Your task to perform on an android device: see sites visited before in the chrome app Image 0: 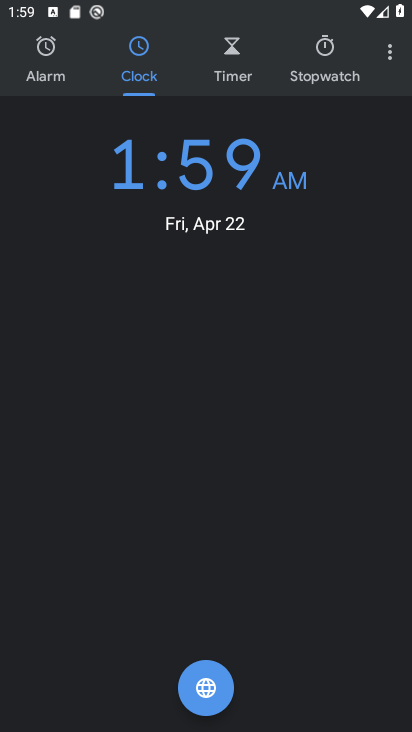
Step 0: press home button
Your task to perform on an android device: see sites visited before in the chrome app Image 1: 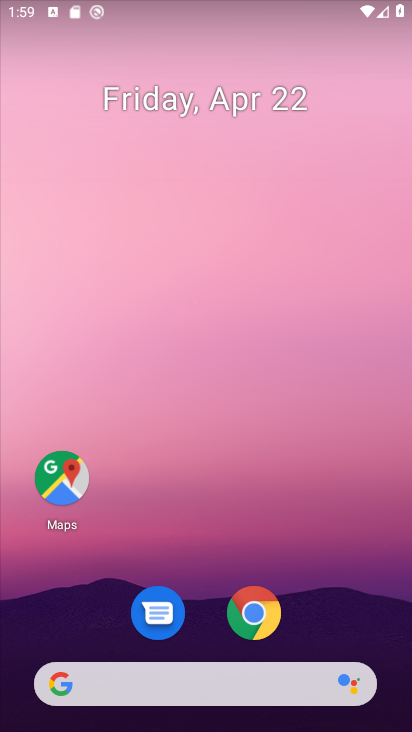
Step 1: click (258, 610)
Your task to perform on an android device: see sites visited before in the chrome app Image 2: 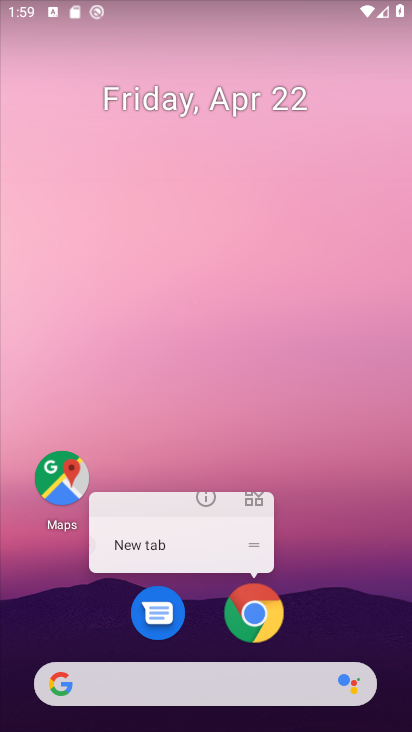
Step 2: click (258, 610)
Your task to perform on an android device: see sites visited before in the chrome app Image 3: 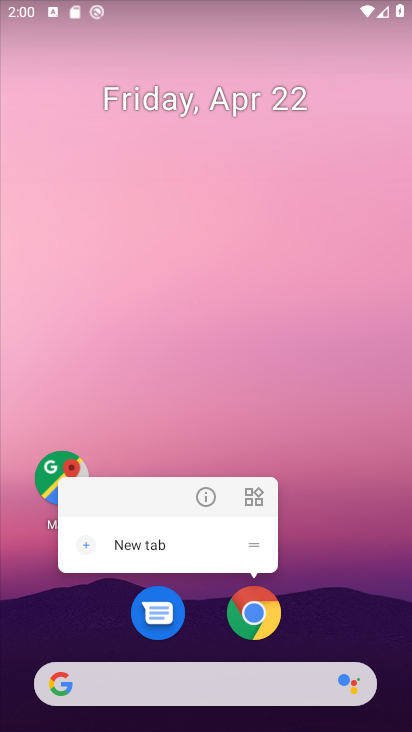
Step 3: click (262, 607)
Your task to perform on an android device: see sites visited before in the chrome app Image 4: 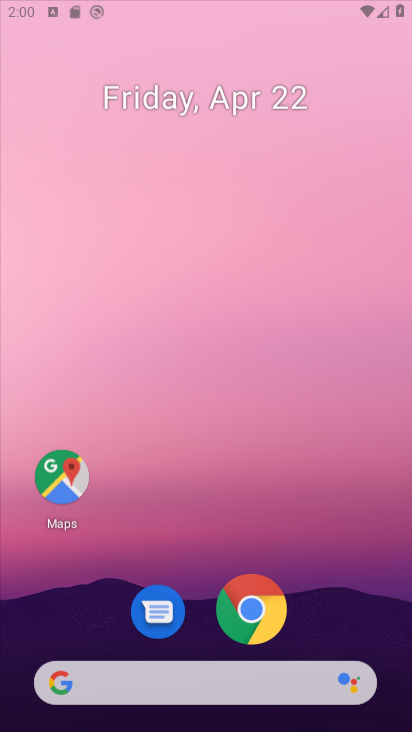
Step 4: click (261, 606)
Your task to perform on an android device: see sites visited before in the chrome app Image 5: 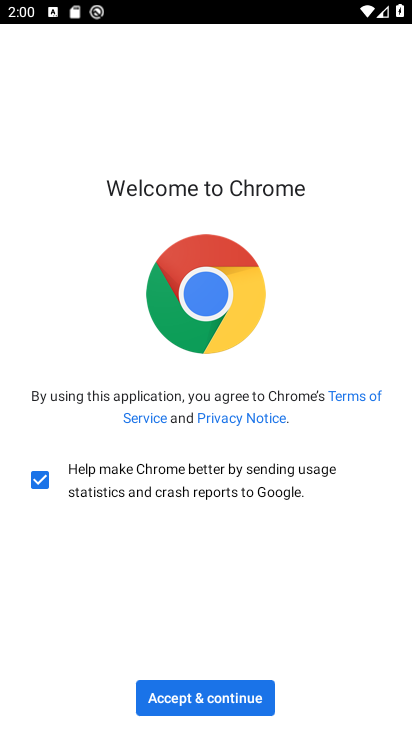
Step 5: click (204, 699)
Your task to perform on an android device: see sites visited before in the chrome app Image 6: 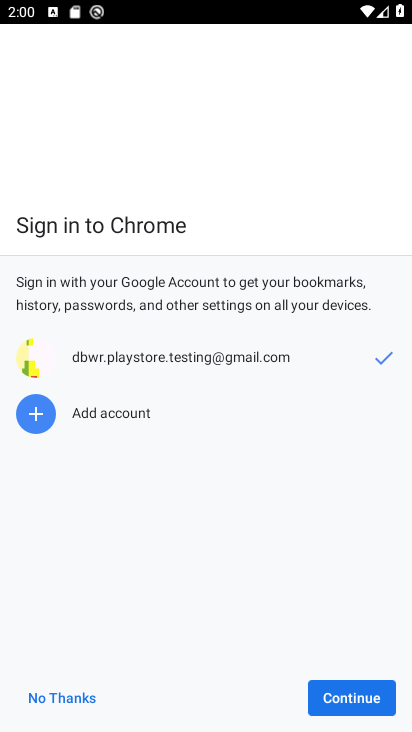
Step 6: click (373, 700)
Your task to perform on an android device: see sites visited before in the chrome app Image 7: 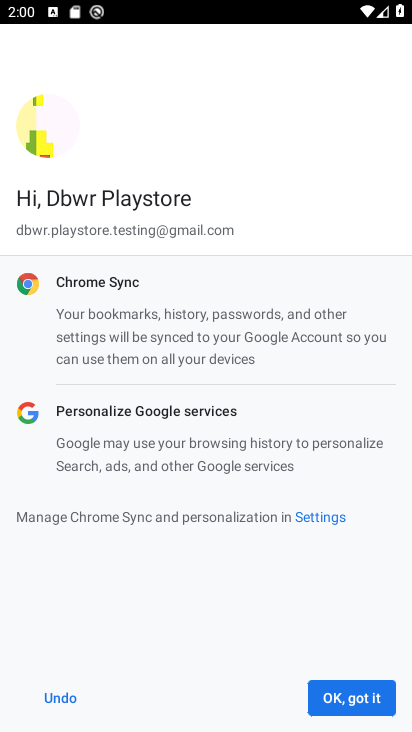
Step 7: click (336, 703)
Your task to perform on an android device: see sites visited before in the chrome app Image 8: 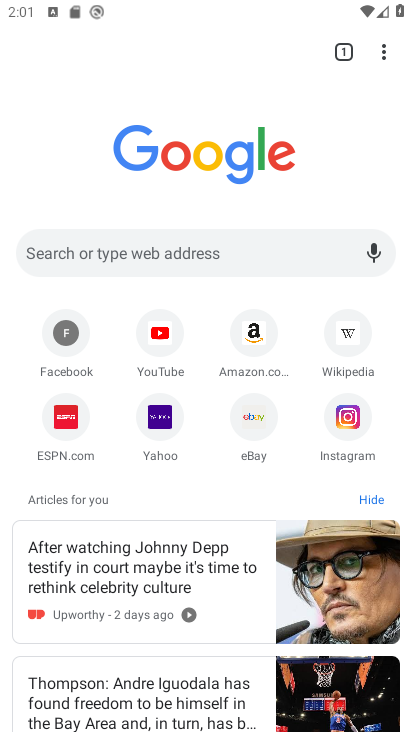
Step 8: click (387, 57)
Your task to perform on an android device: see sites visited before in the chrome app Image 9: 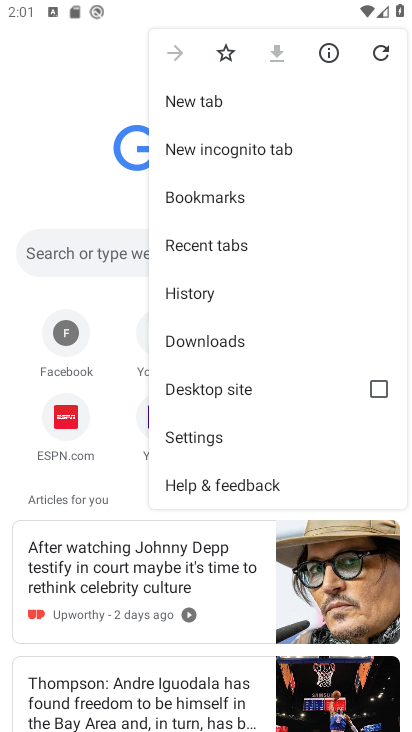
Step 9: click (236, 241)
Your task to perform on an android device: see sites visited before in the chrome app Image 10: 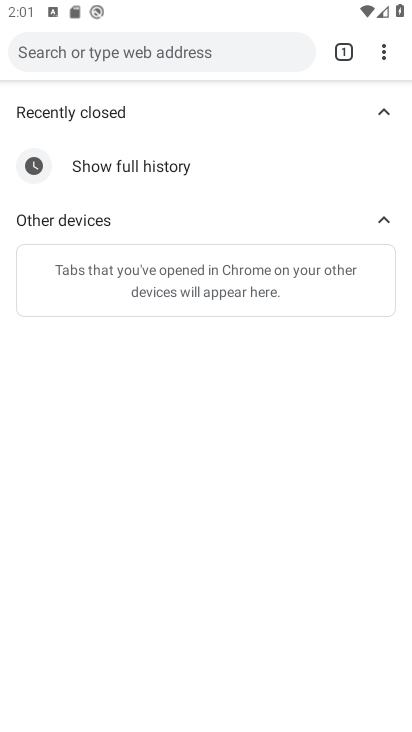
Step 10: task complete